Your task to perform on an android device: Go to network settings Image 0: 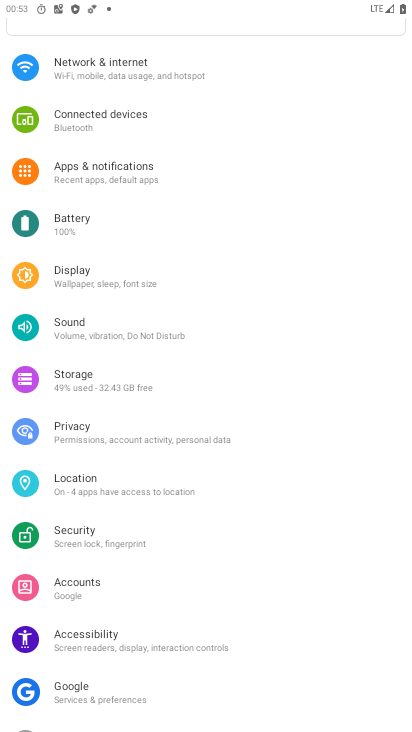
Step 0: click (91, 69)
Your task to perform on an android device: Go to network settings Image 1: 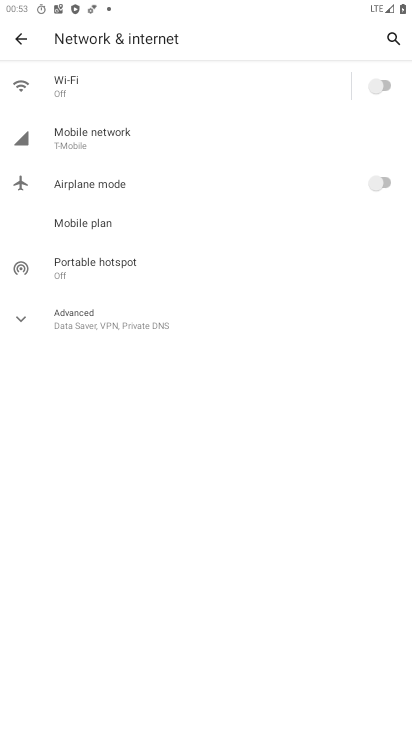
Step 1: click (88, 123)
Your task to perform on an android device: Go to network settings Image 2: 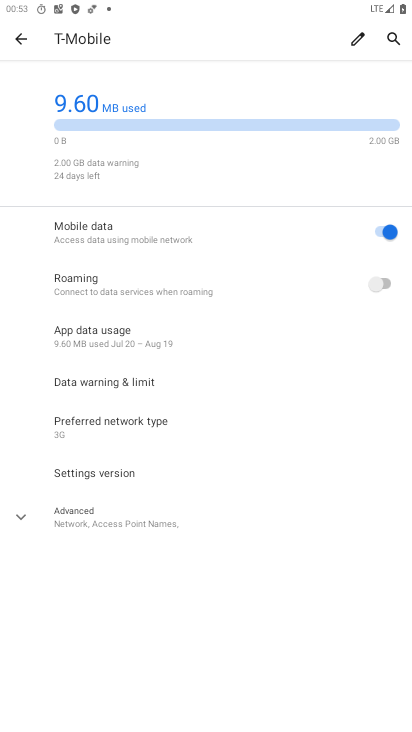
Step 2: task complete